Your task to perform on an android device: Search for vegetarian restaurants on Maps Image 0: 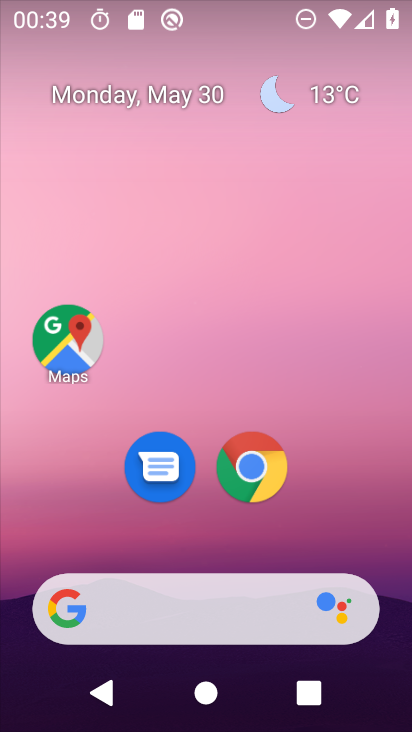
Step 0: click (46, 362)
Your task to perform on an android device: Search for vegetarian restaurants on Maps Image 1: 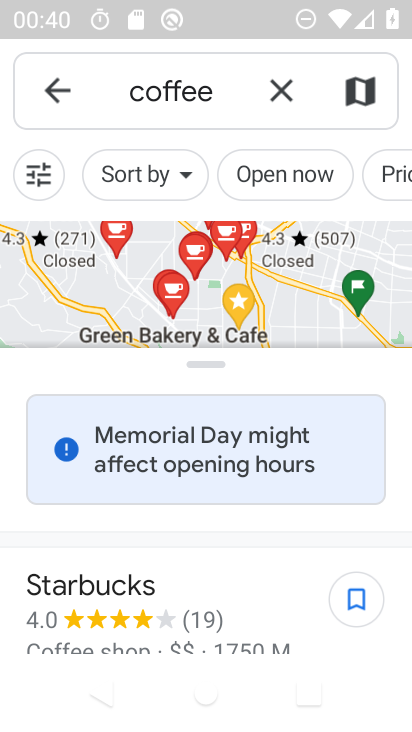
Step 1: click (277, 83)
Your task to perform on an android device: Search for vegetarian restaurants on Maps Image 2: 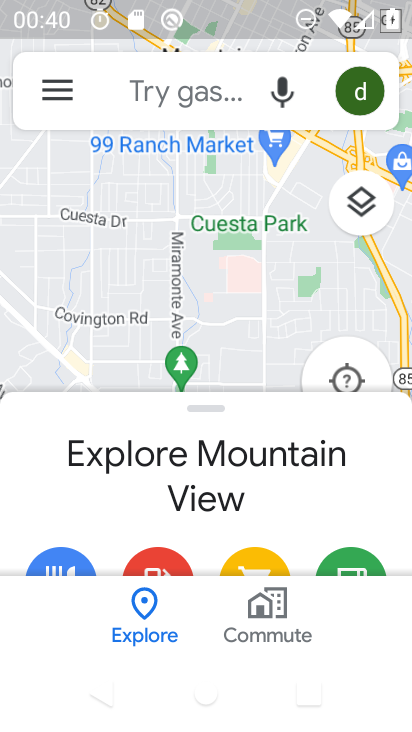
Step 2: click (180, 87)
Your task to perform on an android device: Search for vegetarian restaurants on Maps Image 3: 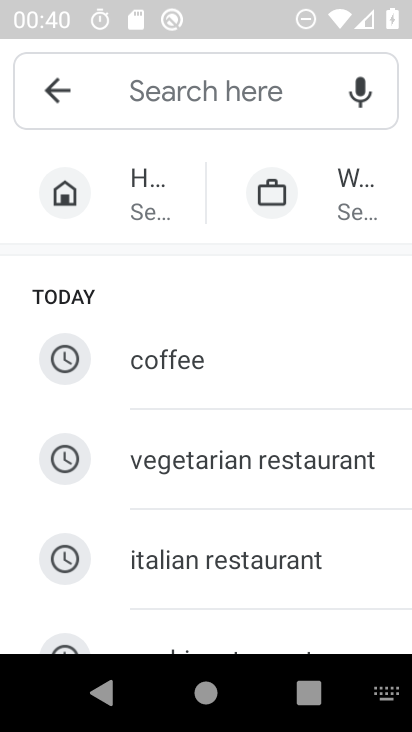
Step 3: click (150, 470)
Your task to perform on an android device: Search for vegetarian restaurants on Maps Image 4: 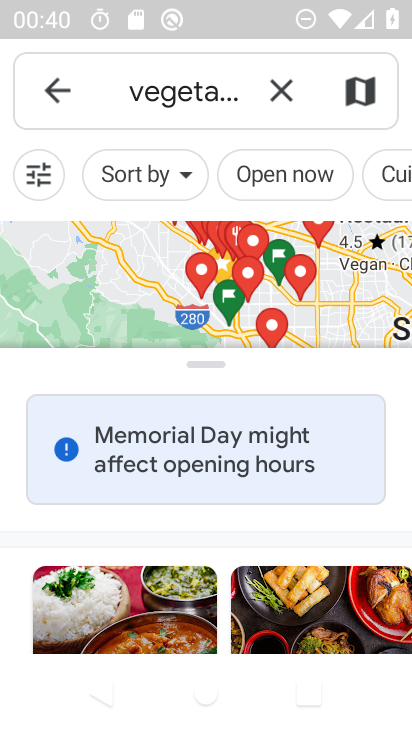
Step 4: task complete